Your task to perform on an android device: turn off wifi Image 0: 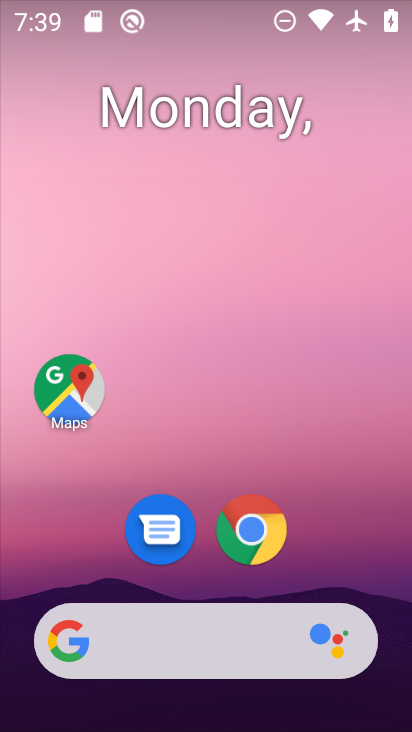
Step 0: drag from (364, 530) to (206, 70)
Your task to perform on an android device: turn off wifi Image 1: 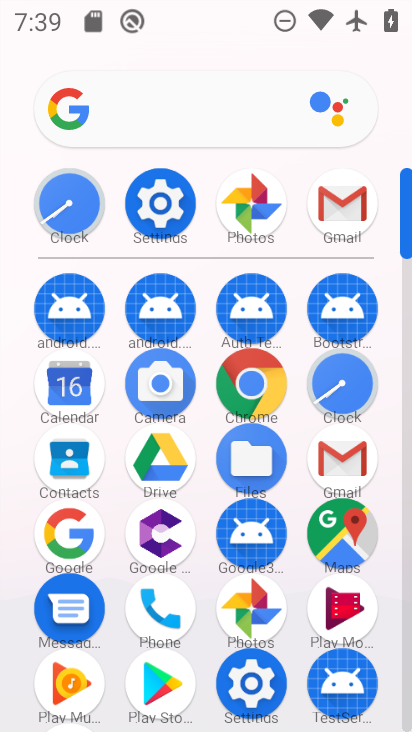
Step 1: click (161, 196)
Your task to perform on an android device: turn off wifi Image 2: 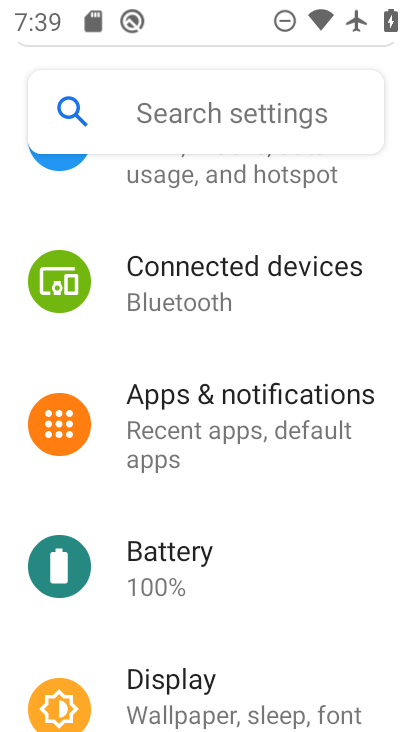
Step 2: drag from (177, 205) to (211, 728)
Your task to perform on an android device: turn off wifi Image 3: 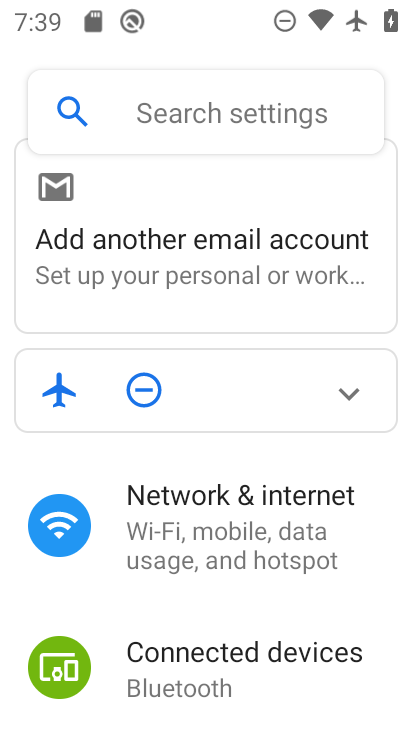
Step 3: click (205, 491)
Your task to perform on an android device: turn off wifi Image 4: 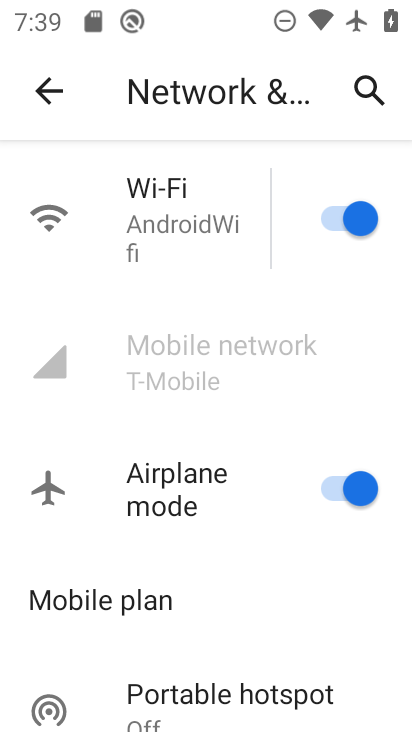
Step 4: click (351, 207)
Your task to perform on an android device: turn off wifi Image 5: 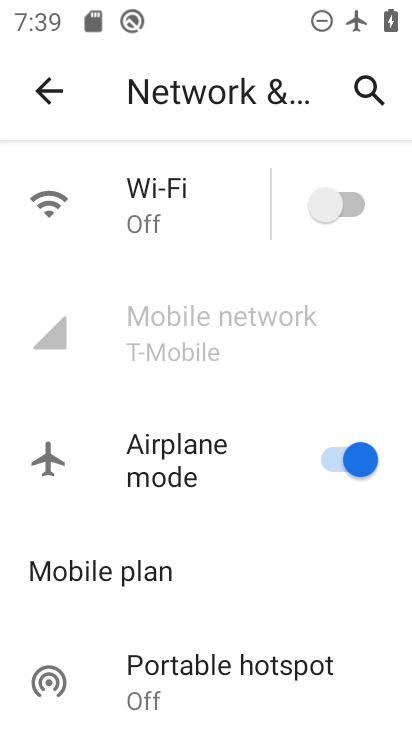
Step 5: task complete